Your task to perform on an android device: Do I have any events tomorrow? Image 0: 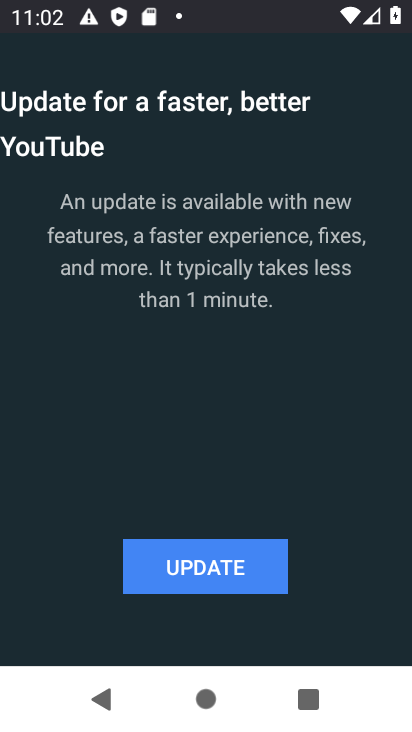
Step 0: press back button
Your task to perform on an android device: Do I have any events tomorrow? Image 1: 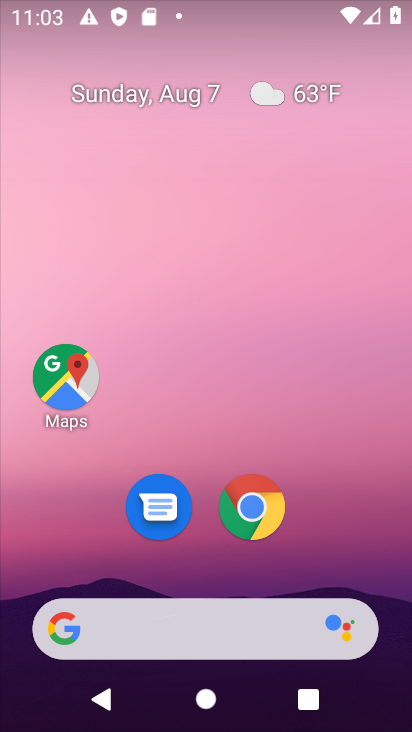
Step 1: drag from (336, 562) to (244, 252)
Your task to perform on an android device: Do I have any events tomorrow? Image 2: 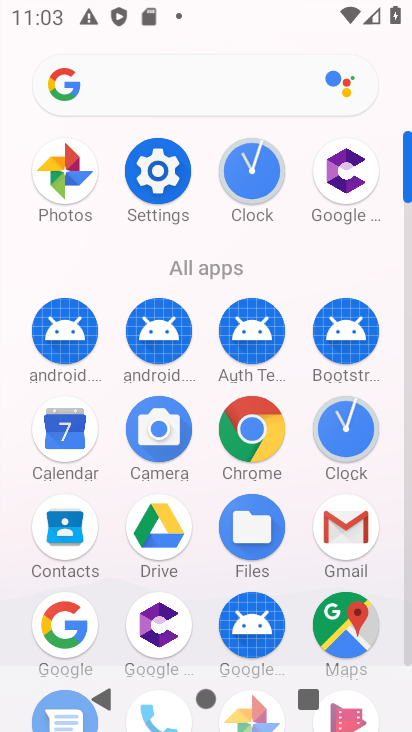
Step 2: click (80, 445)
Your task to perform on an android device: Do I have any events tomorrow? Image 3: 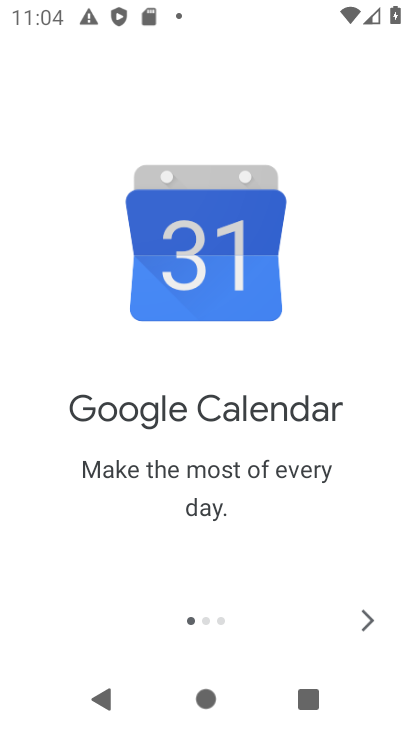
Step 3: click (362, 624)
Your task to perform on an android device: Do I have any events tomorrow? Image 4: 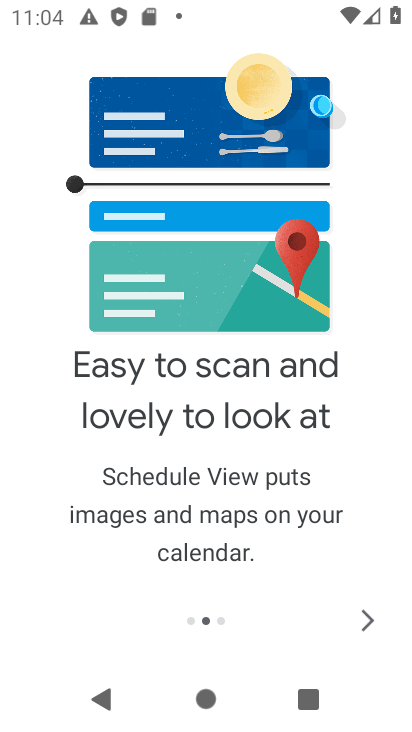
Step 4: click (362, 624)
Your task to perform on an android device: Do I have any events tomorrow? Image 5: 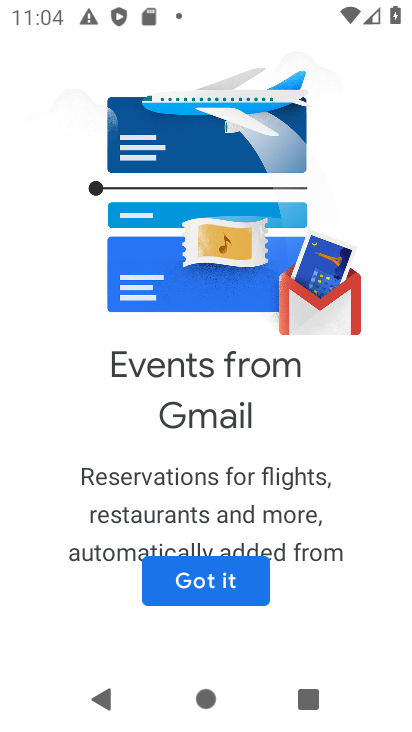
Step 5: click (243, 597)
Your task to perform on an android device: Do I have any events tomorrow? Image 6: 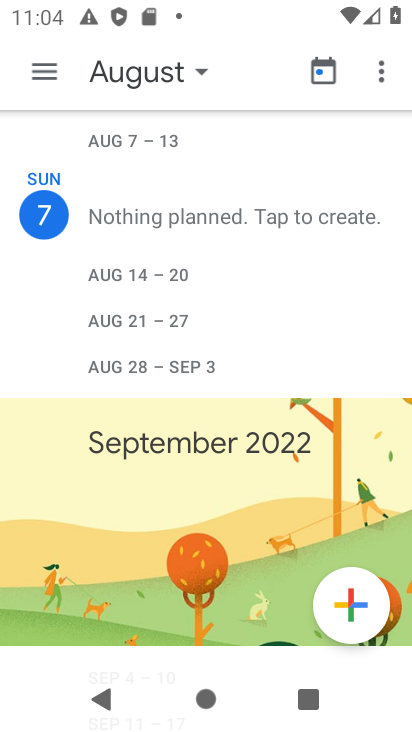
Step 6: click (41, 56)
Your task to perform on an android device: Do I have any events tomorrow? Image 7: 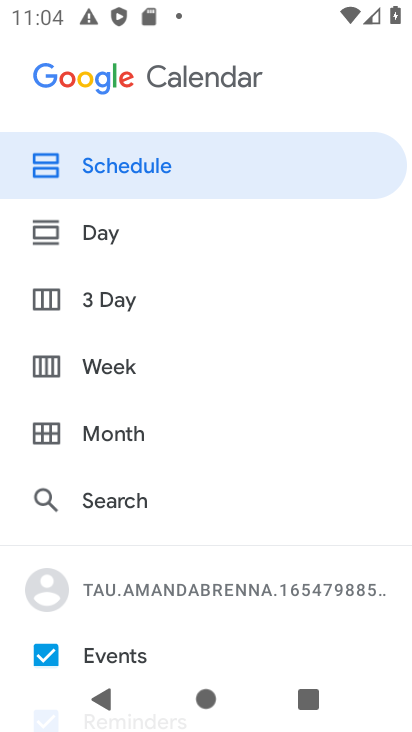
Step 7: click (163, 233)
Your task to perform on an android device: Do I have any events tomorrow? Image 8: 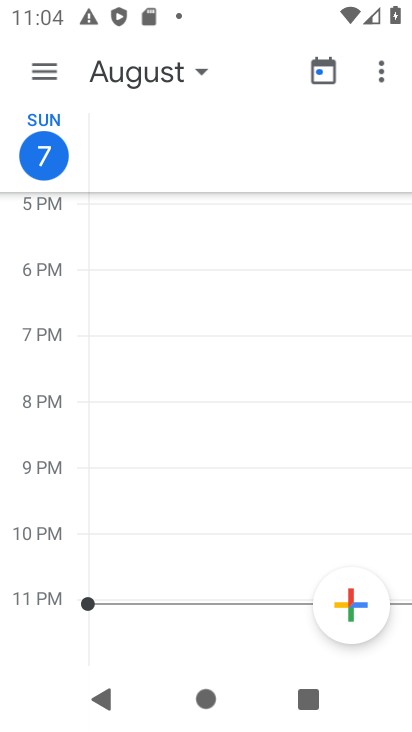
Step 8: click (165, 67)
Your task to perform on an android device: Do I have any events tomorrow? Image 9: 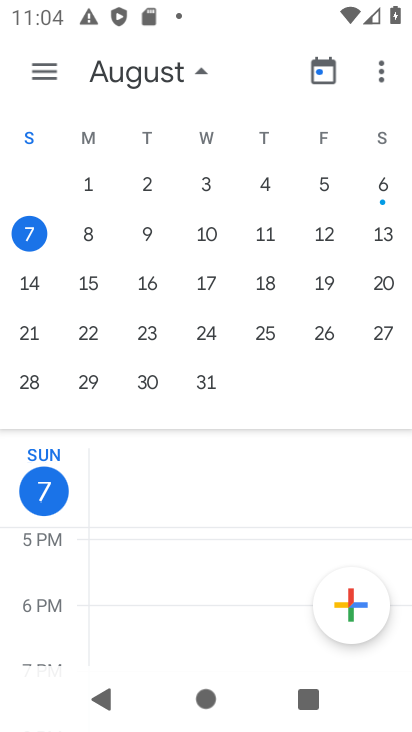
Step 9: click (94, 232)
Your task to perform on an android device: Do I have any events tomorrow? Image 10: 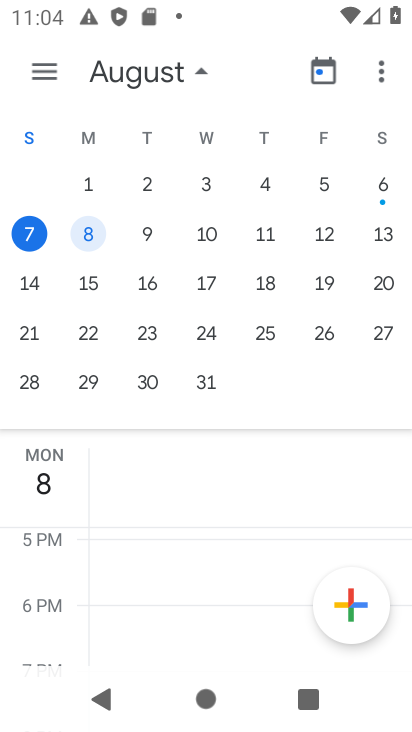
Step 10: task complete